Your task to perform on an android device: change keyboard looks Image 0: 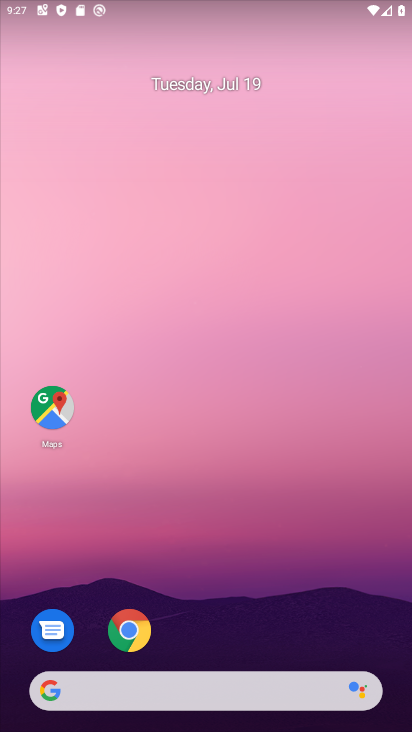
Step 0: drag from (215, 680) to (228, 16)
Your task to perform on an android device: change keyboard looks Image 1: 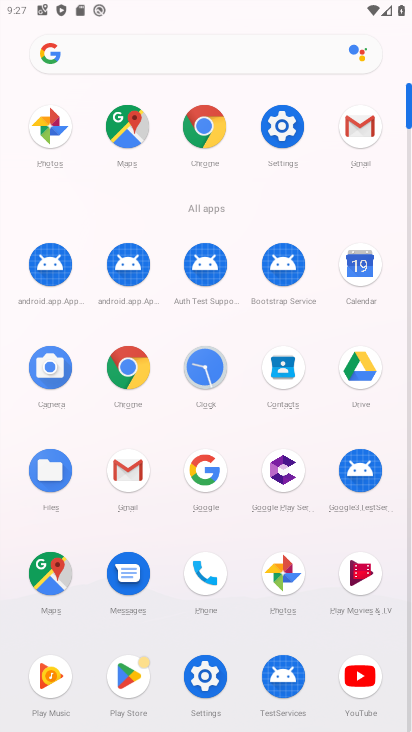
Step 1: click (202, 658)
Your task to perform on an android device: change keyboard looks Image 2: 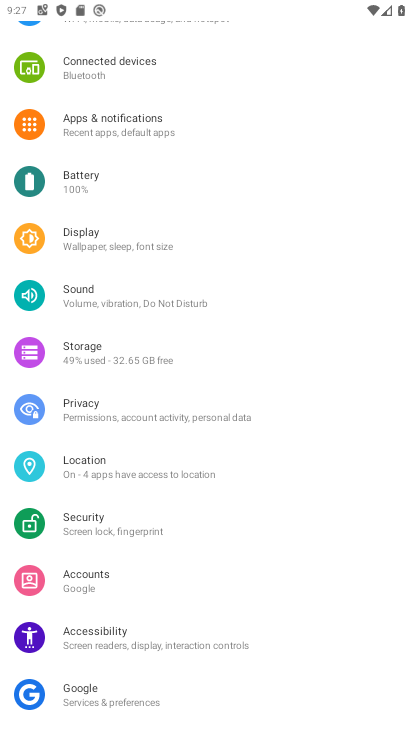
Step 2: drag from (147, 671) to (139, 169)
Your task to perform on an android device: change keyboard looks Image 3: 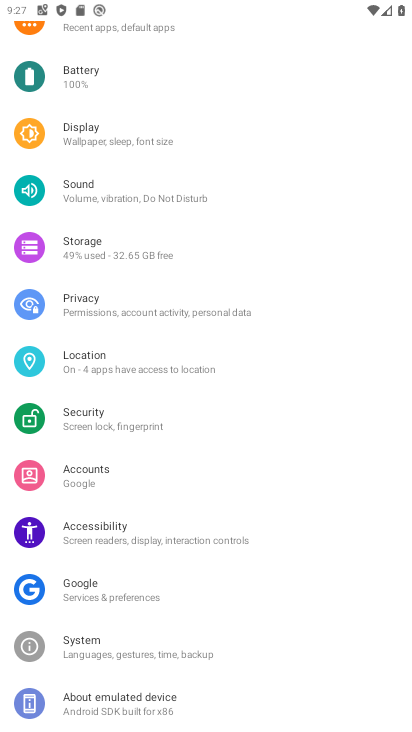
Step 3: click (108, 656)
Your task to perform on an android device: change keyboard looks Image 4: 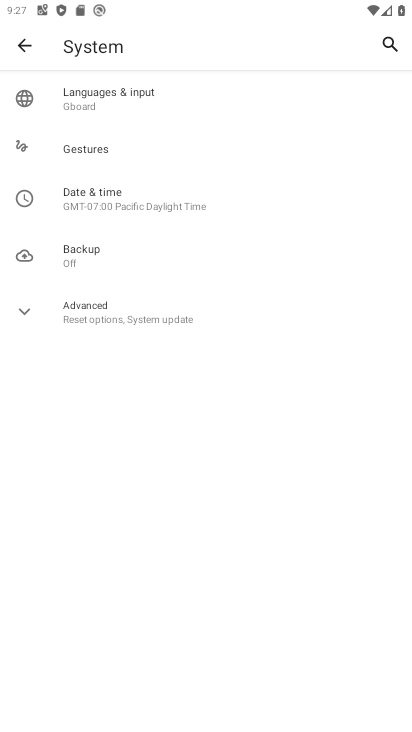
Step 4: click (127, 102)
Your task to perform on an android device: change keyboard looks Image 5: 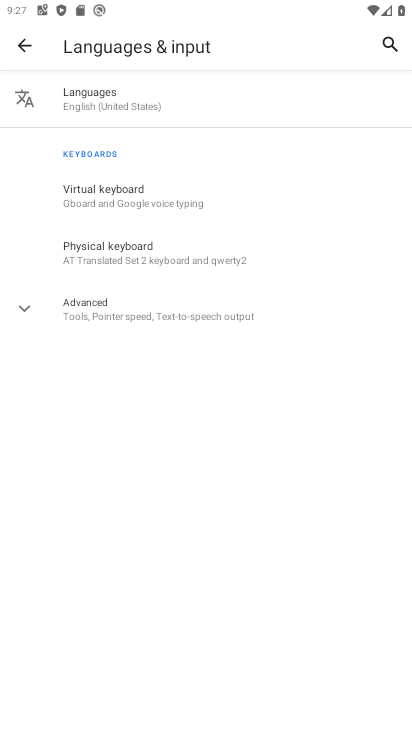
Step 5: click (132, 219)
Your task to perform on an android device: change keyboard looks Image 6: 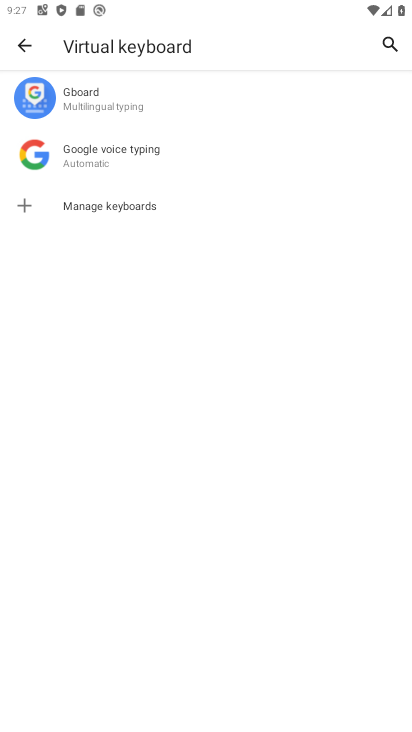
Step 6: click (84, 104)
Your task to perform on an android device: change keyboard looks Image 7: 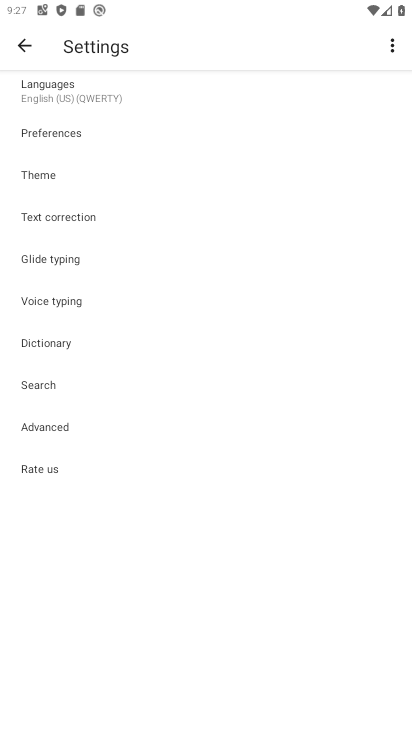
Step 7: click (25, 186)
Your task to perform on an android device: change keyboard looks Image 8: 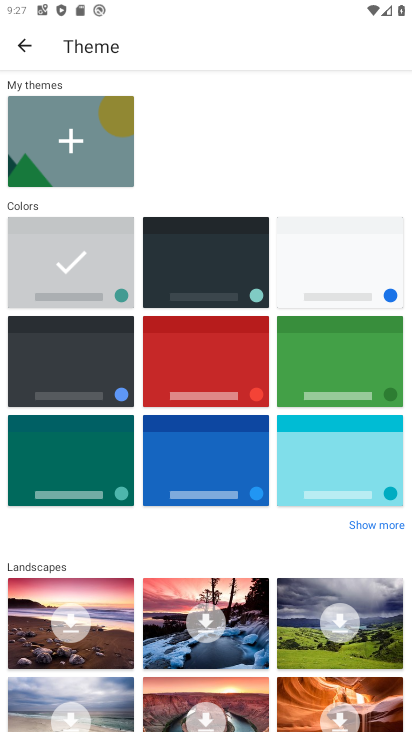
Step 8: click (344, 471)
Your task to perform on an android device: change keyboard looks Image 9: 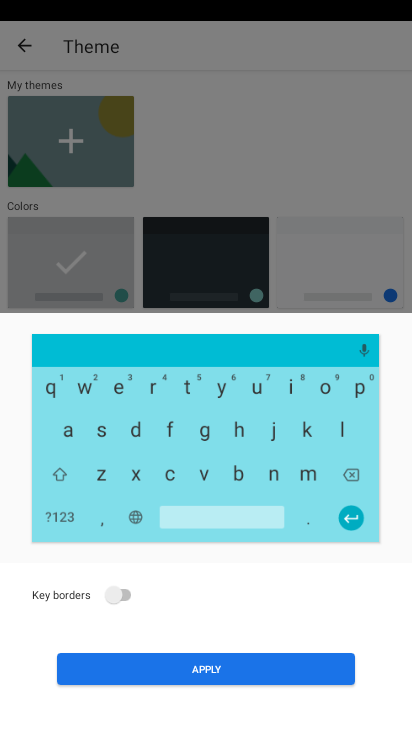
Step 9: click (119, 594)
Your task to perform on an android device: change keyboard looks Image 10: 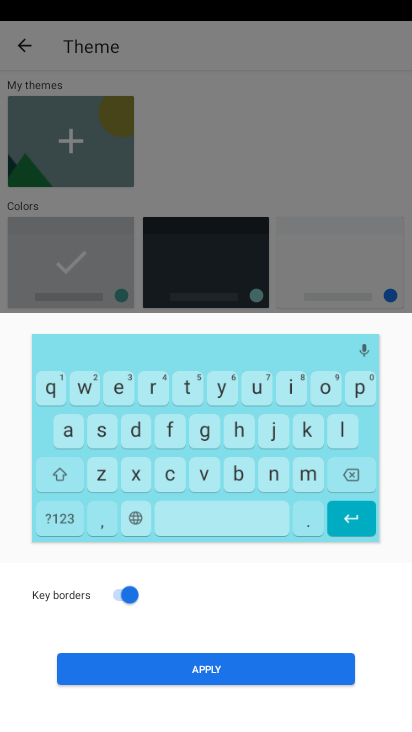
Step 10: click (176, 677)
Your task to perform on an android device: change keyboard looks Image 11: 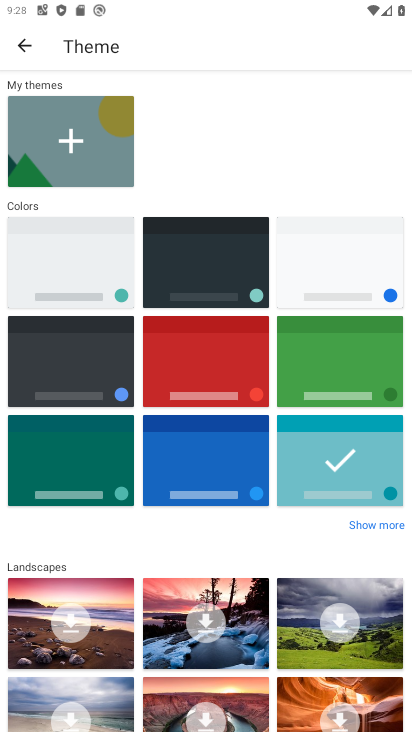
Step 11: task complete